Your task to perform on an android device: Search for "razer nari" on newegg.com, select the first entry, and add it to the cart. Image 0: 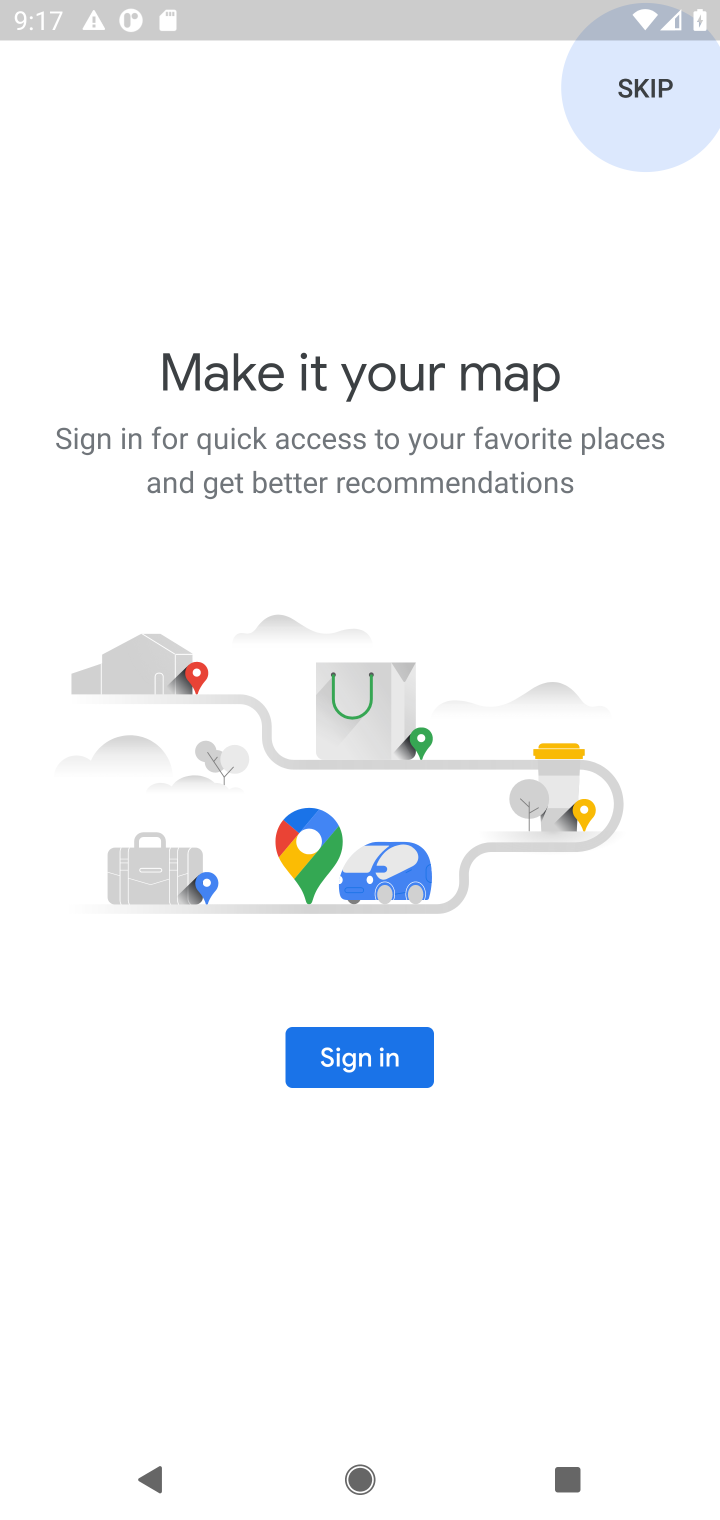
Step 0: press home button
Your task to perform on an android device: Search for "razer nari" on newegg.com, select the first entry, and add it to the cart. Image 1: 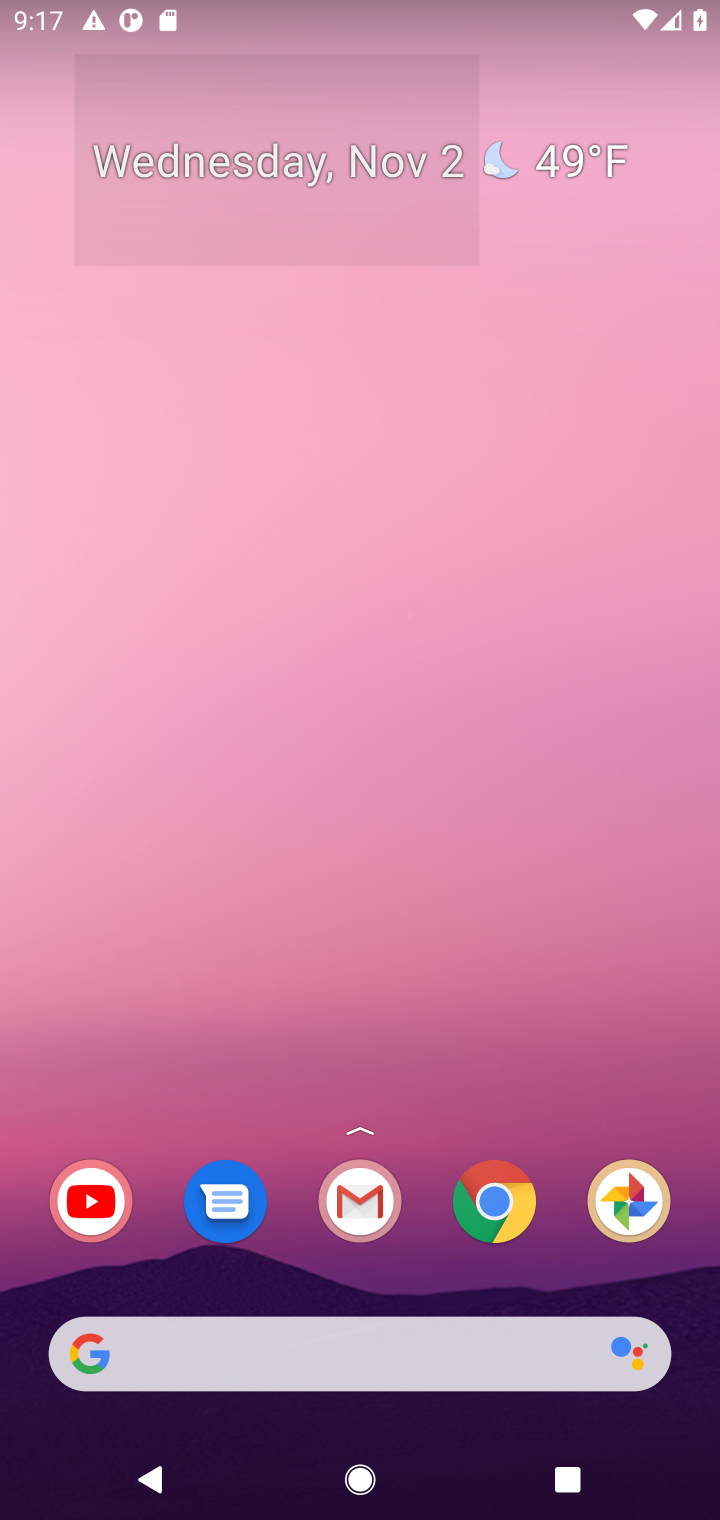
Step 1: drag from (431, 1276) to (551, 282)
Your task to perform on an android device: Search for "razer nari" on newegg.com, select the first entry, and add it to the cart. Image 2: 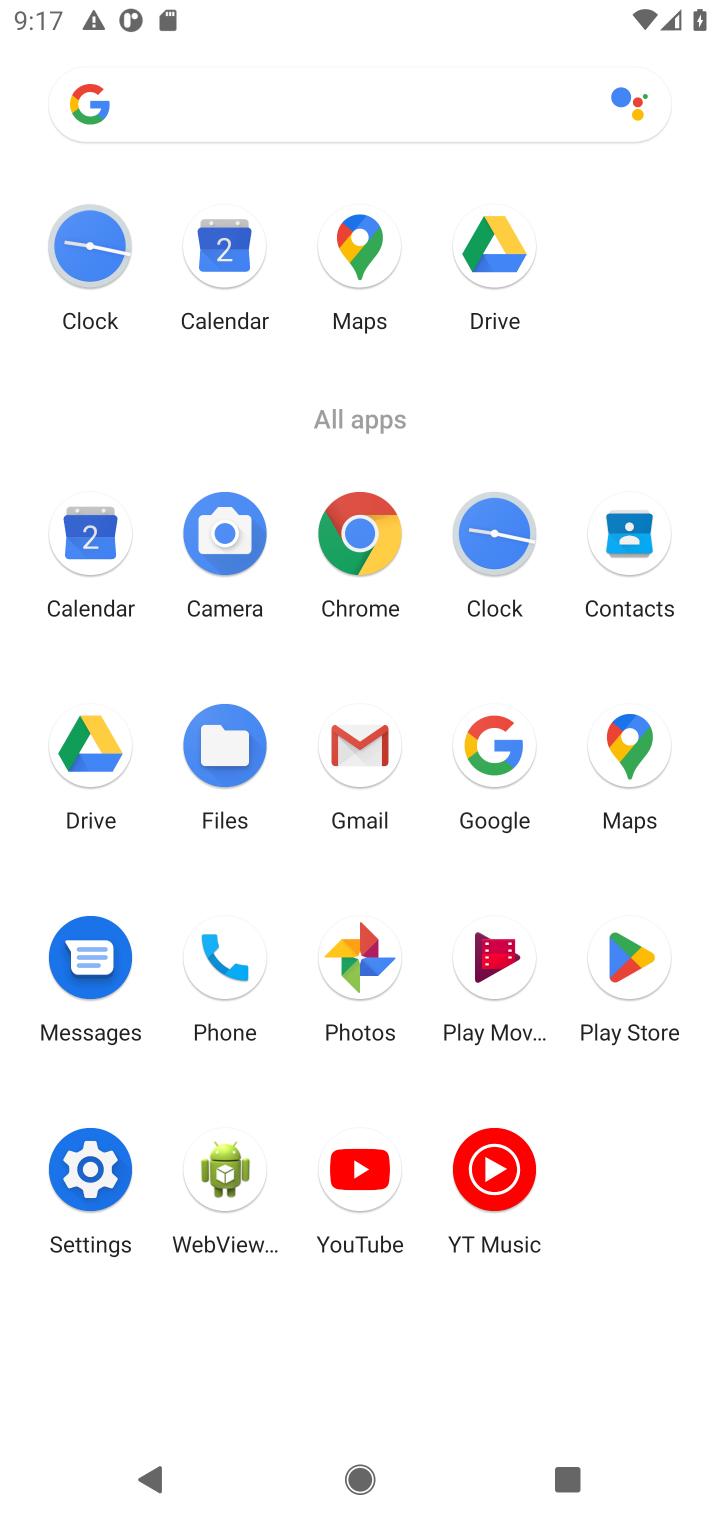
Step 2: click (369, 541)
Your task to perform on an android device: Search for "razer nari" on newegg.com, select the first entry, and add it to the cart. Image 3: 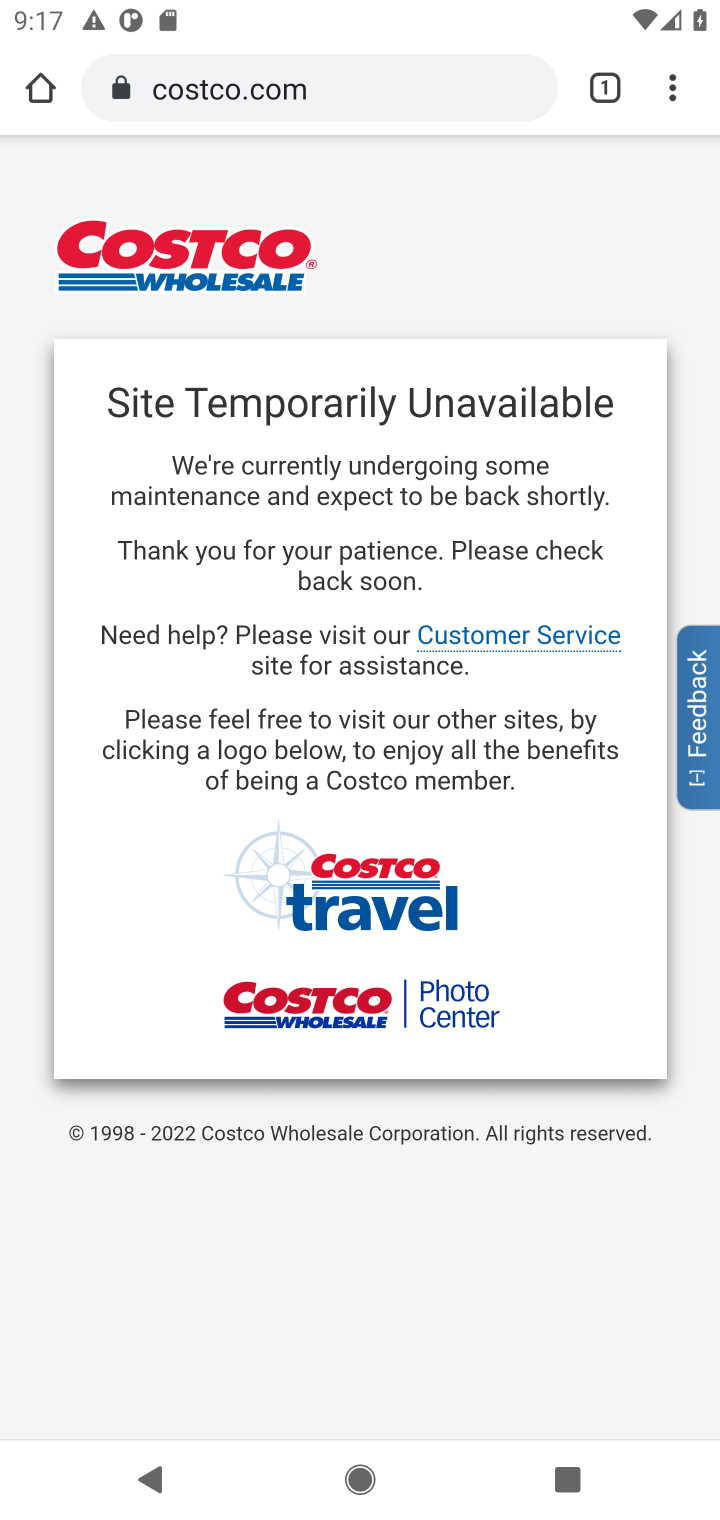
Step 3: click (444, 83)
Your task to perform on an android device: Search for "razer nari" on newegg.com, select the first entry, and add it to the cart. Image 4: 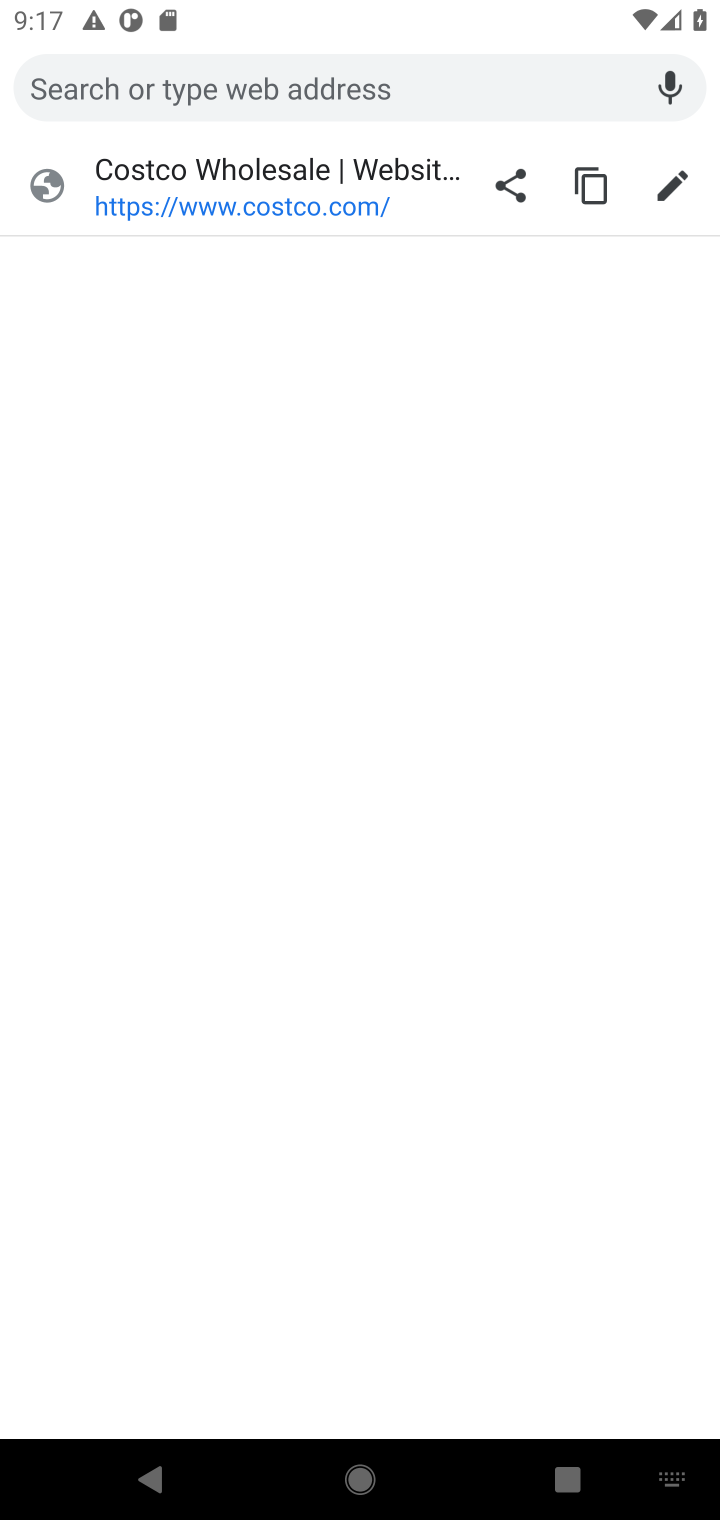
Step 4: type "newegg.com"
Your task to perform on an android device: Search for "razer nari" on newegg.com, select the first entry, and add it to the cart. Image 5: 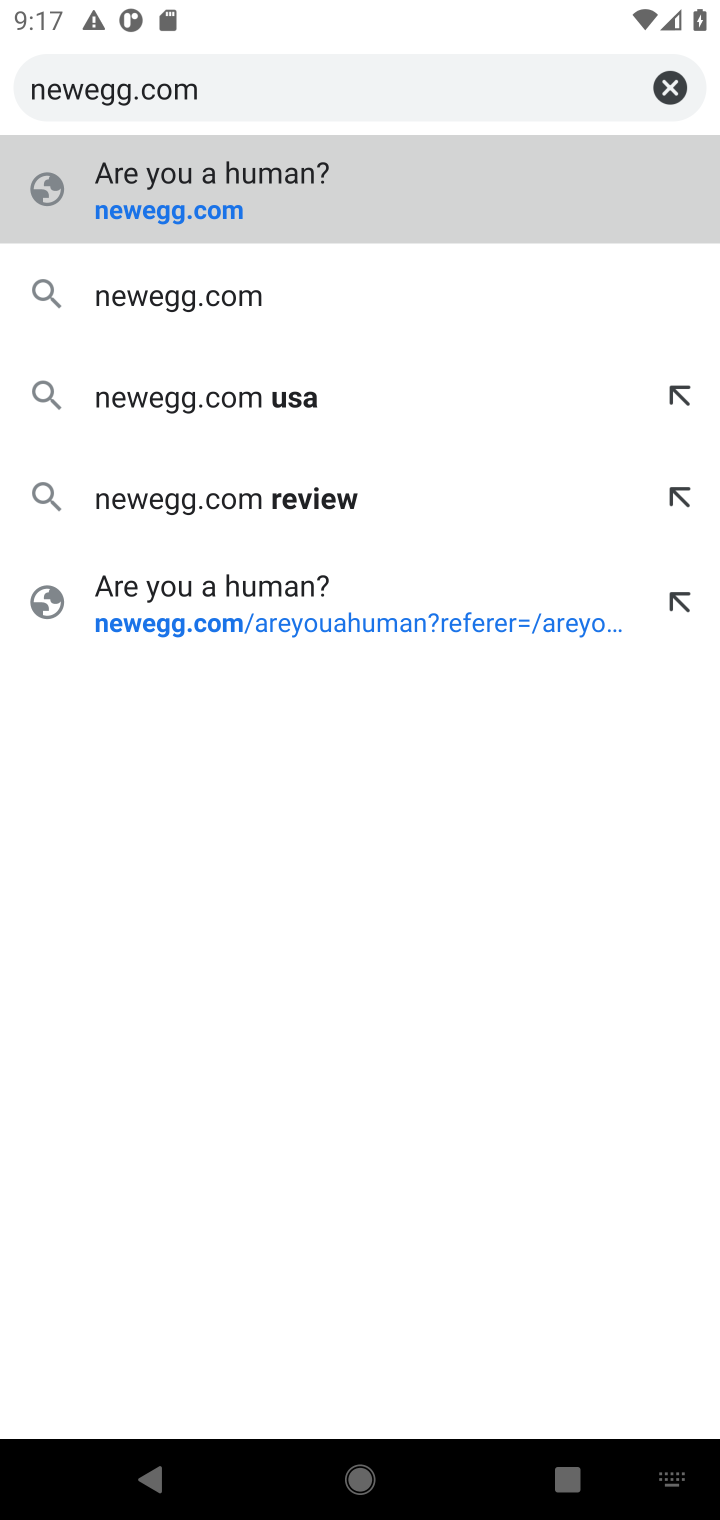
Step 5: press enter
Your task to perform on an android device: Search for "razer nari" on newegg.com, select the first entry, and add it to the cart. Image 6: 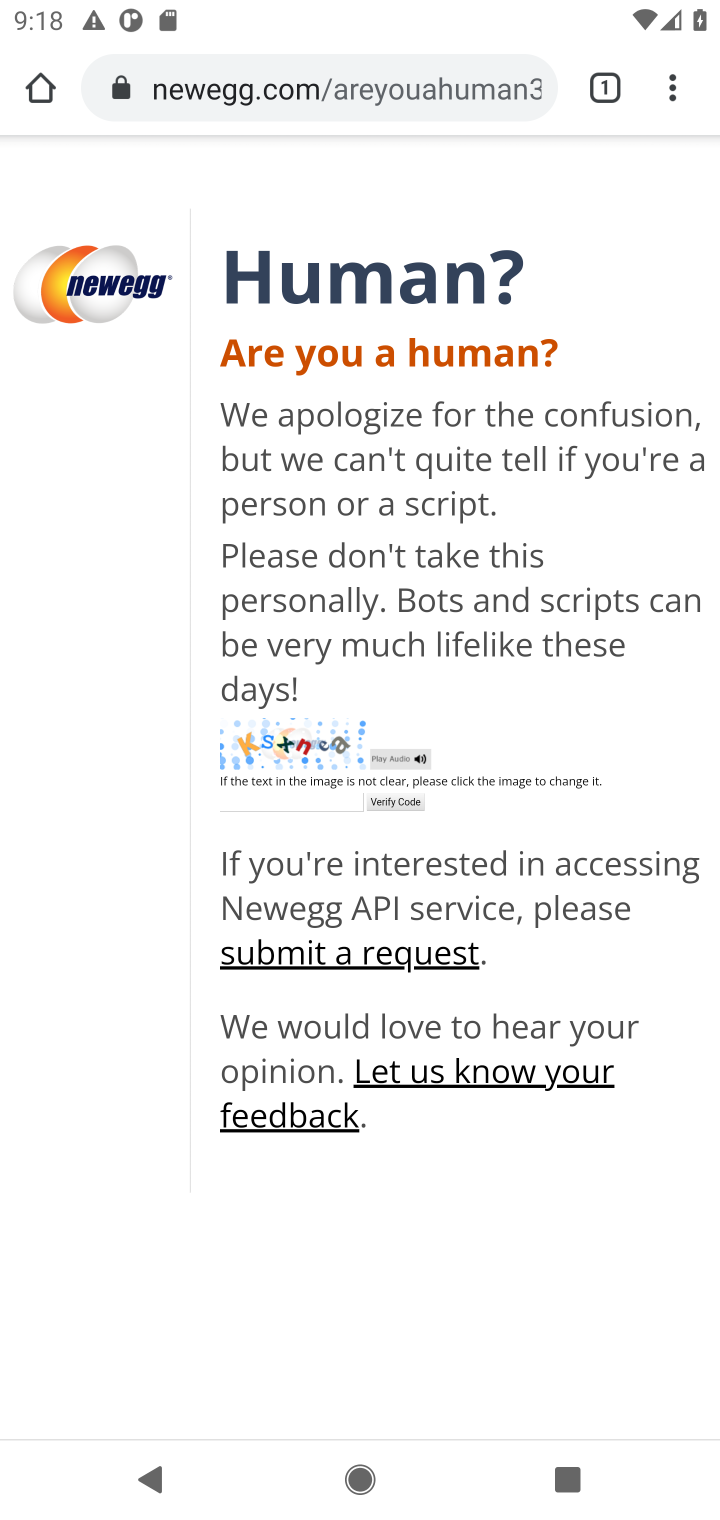
Step 6: click (302, 808)
Your task to perform on an android device: Search for "razer nari" on newegg.com, select the first entry, and add it to the cart. Image 7: 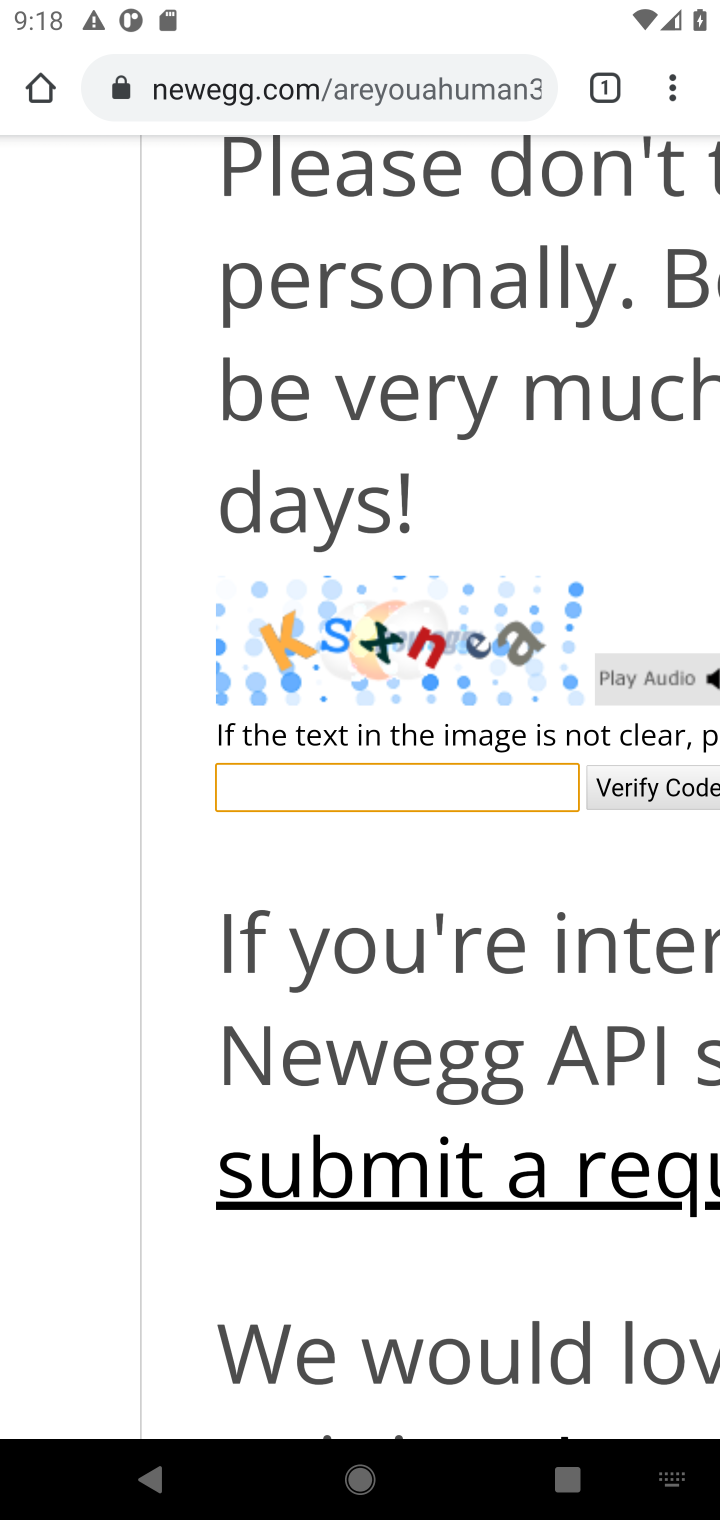
Step 7: type "Ksxnea"
Your task to perform on an android device: Search for "razer nari" on newegg.com, select the first entry, and add it to the cart. Image 8: 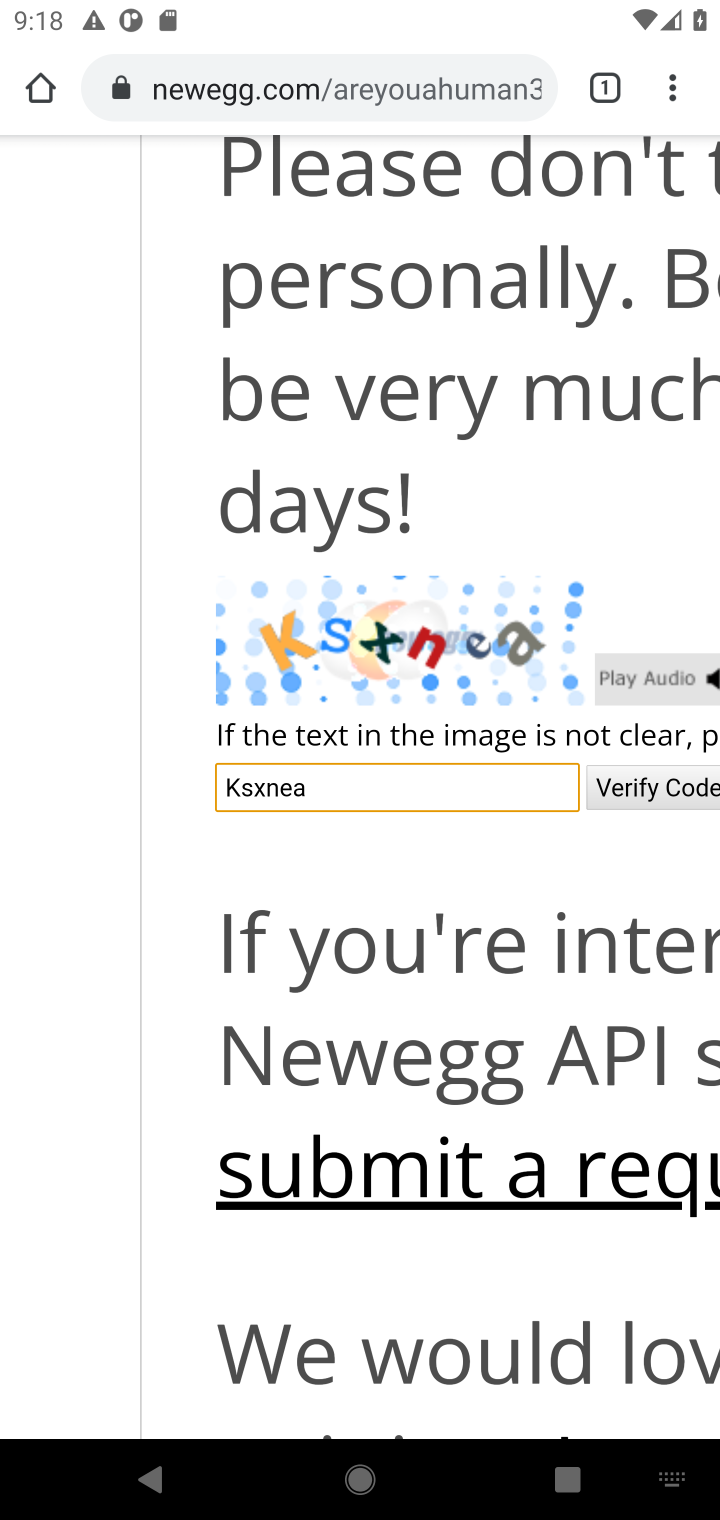
Step 8: click (646, 784)
Your task to perform on an android device: Search for "razer nari" on newegg.com, select the first entry, and add it to the cart. Image 9: 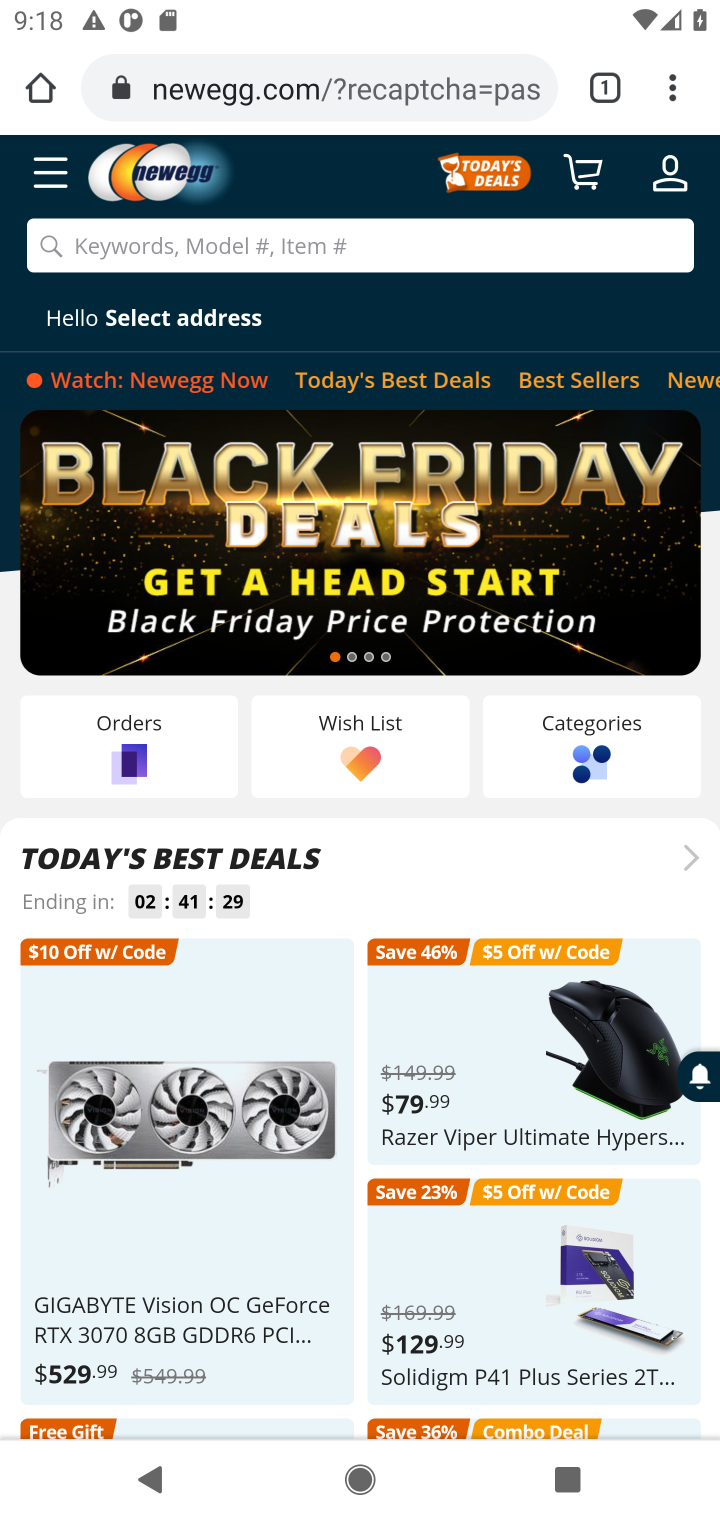
Step 9: click (362, 230)
Your task to perform on an android device: Search for "razer nari" on newegg.com, select the first entry, and add it to the cart. Image 10: 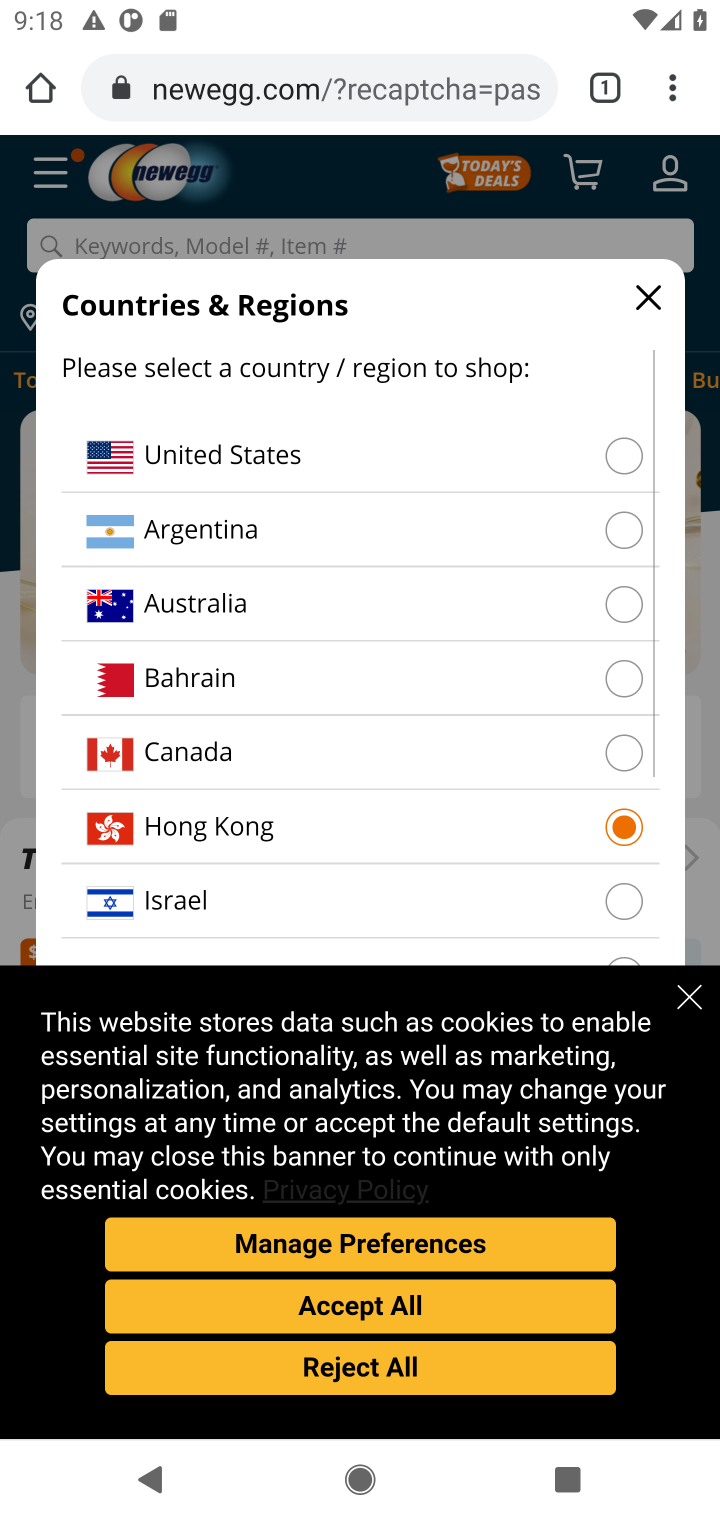
Step 10: click (644, 297)
Your task to perform on an android device: Search for "razer nari" on newegg.com, select the first entry, and add it to the cart. Image 11: 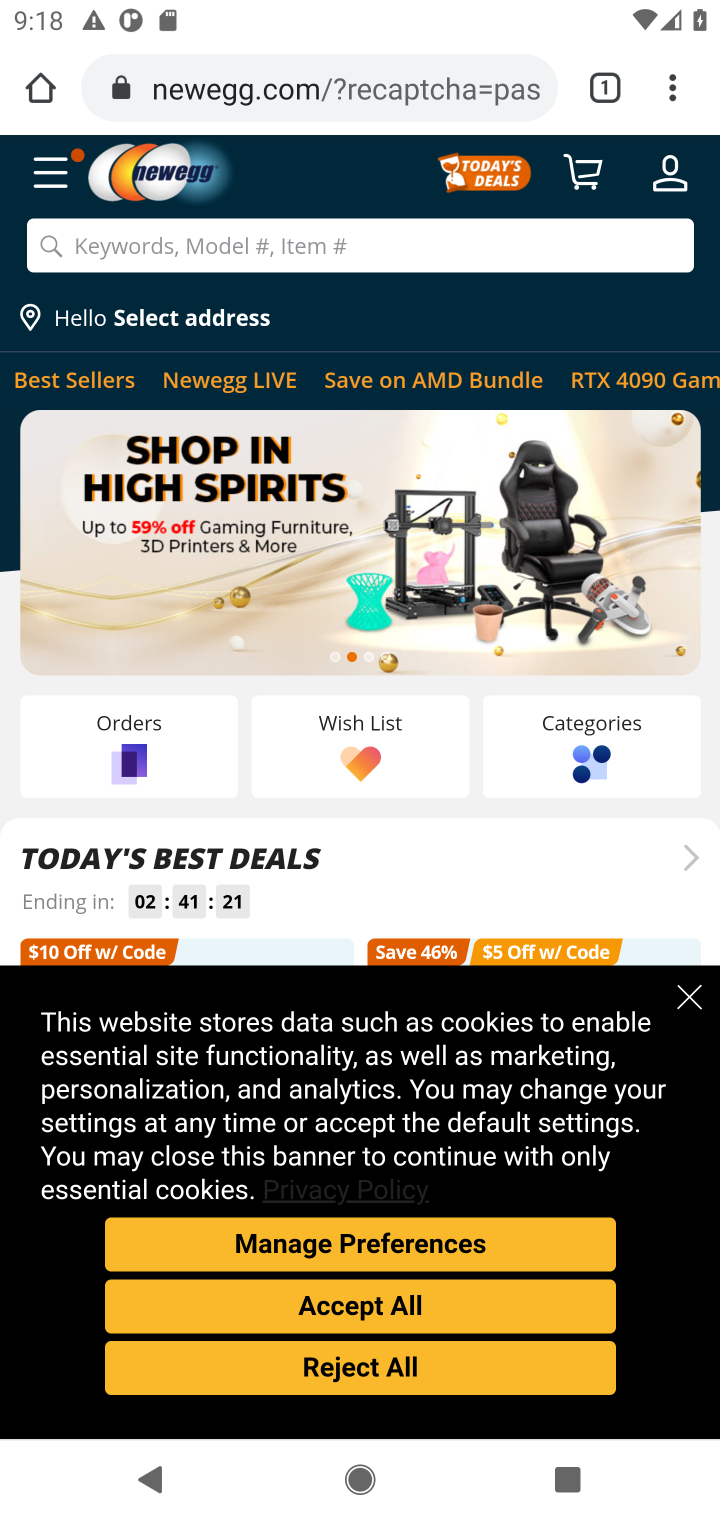
Step 11: click (511, 253)
Your task to perform on an android device: Search for "razer nari" on newegg.com, select the first entry, and add it to the cart. Image 12: 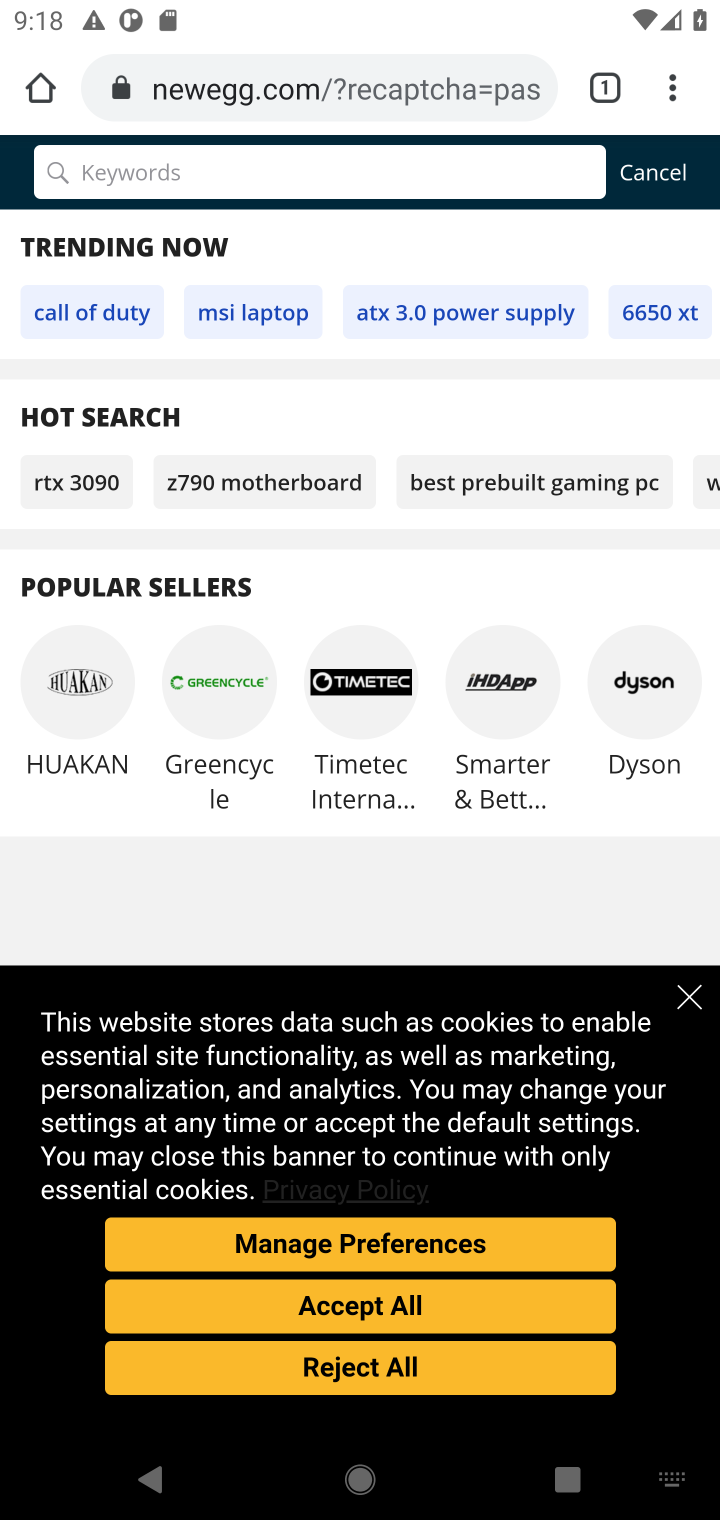
Step 12: type "razer nari"
Your task to perform on an android device: Search for "razer nari" on newegg.com, select the first entry, and add it to the cart. Image 13: 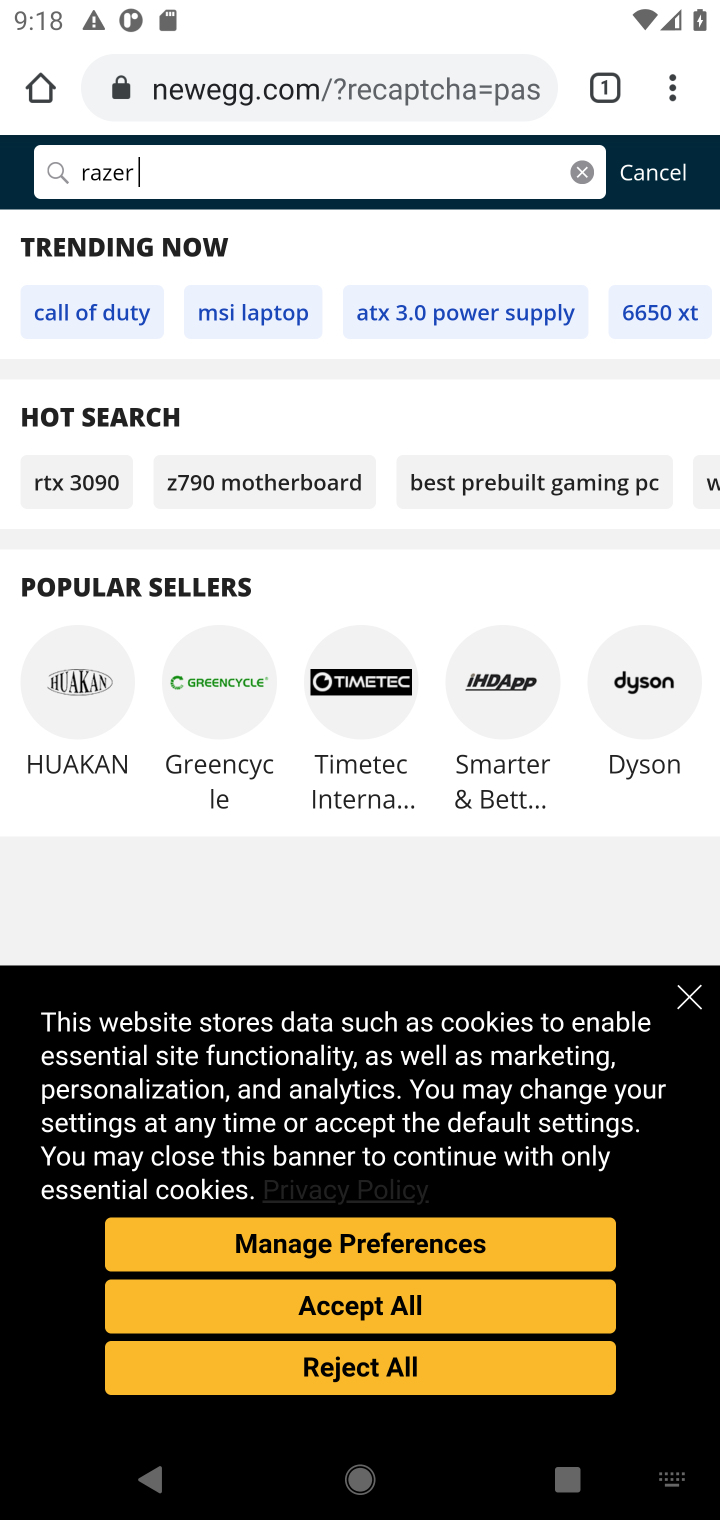
Step 13: press enter
Your task to perform on an android device: Search for "razer nari" on newegg.com, select the first entry, and add it to the cart. Image 14: 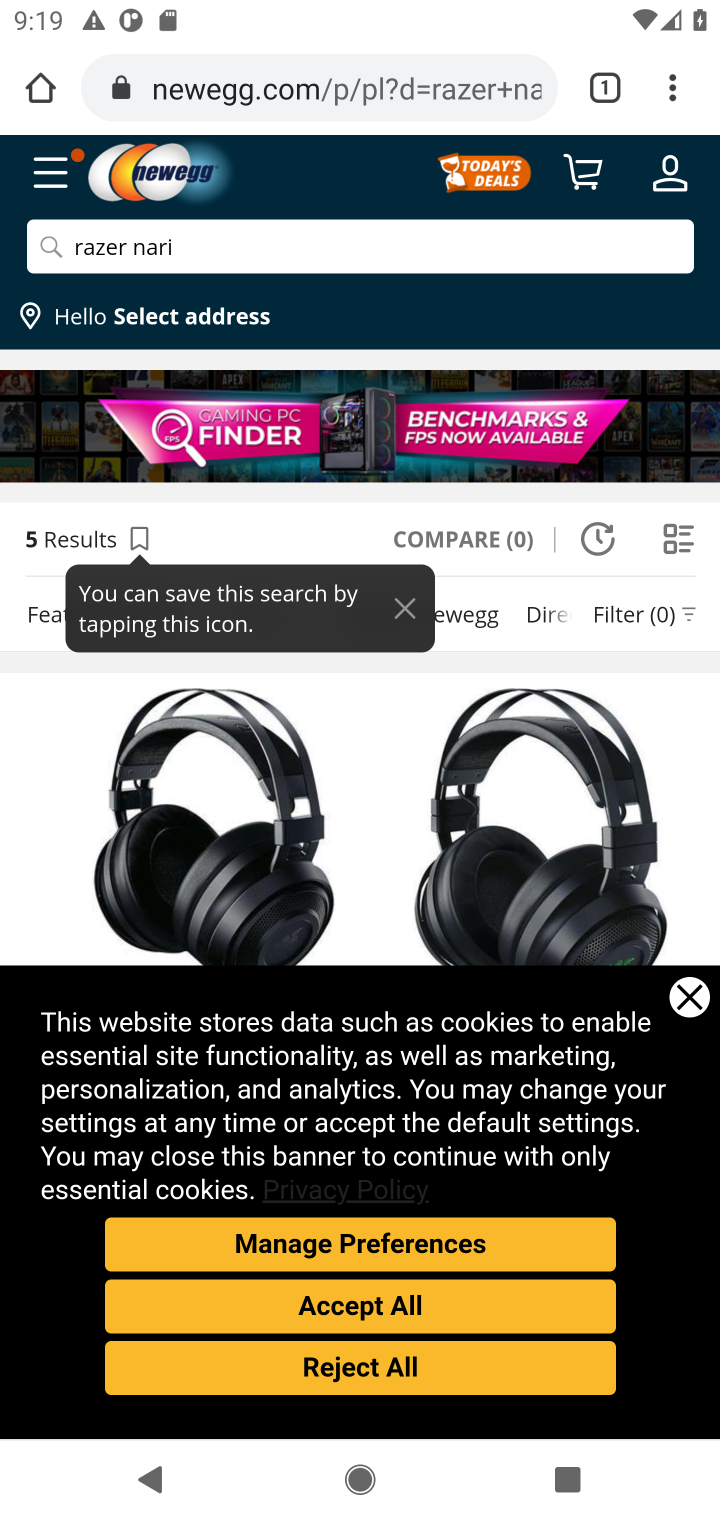
Step 14: drag from (511, 903) to (628, 506)
Your task to perform on an android device: Search for "razer nari" on newegg.com, select the first entry, and add it to the cart. Image 15: 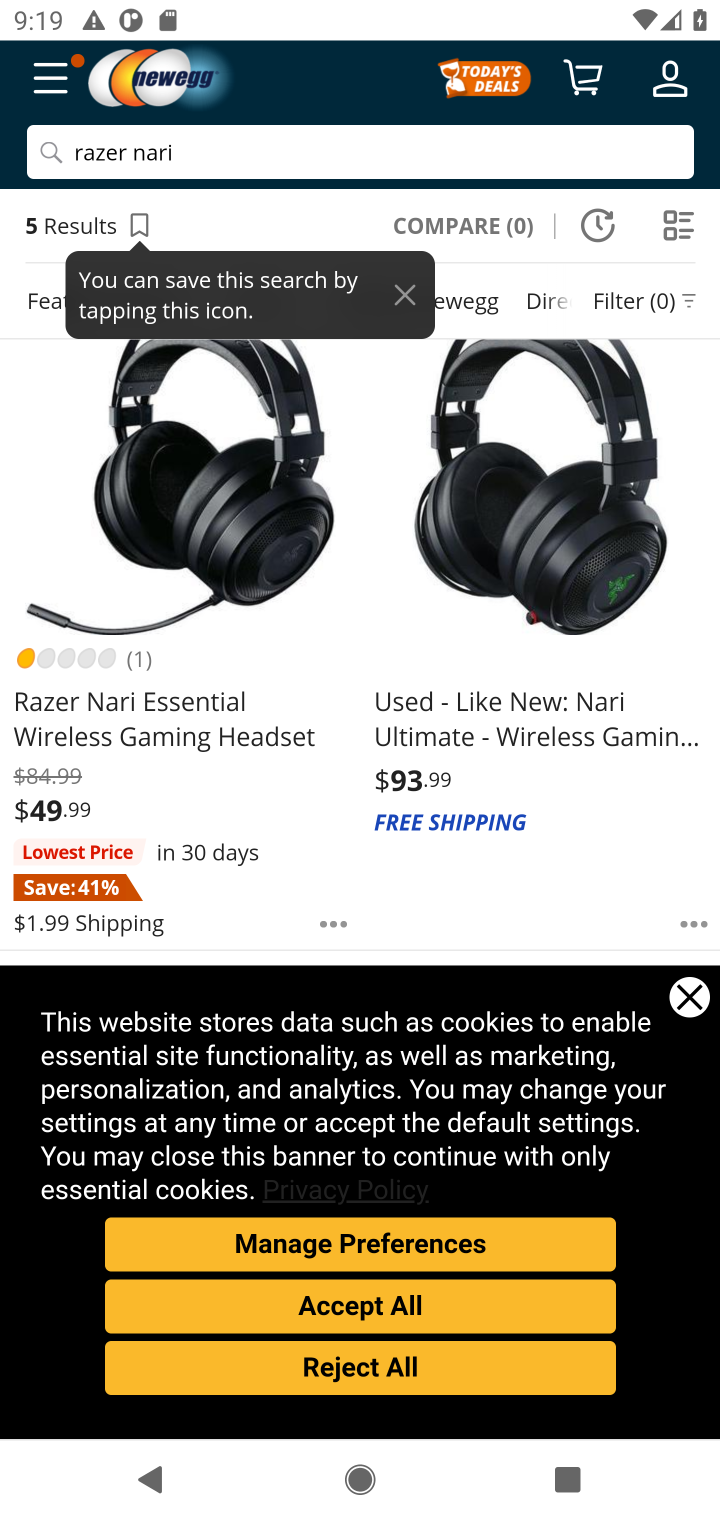
Step 15: click (401, 297)
Your task to perform on an android device: Search for "razer nari" on newegg.com, select the first entry, and add it to the cart. Image 16: 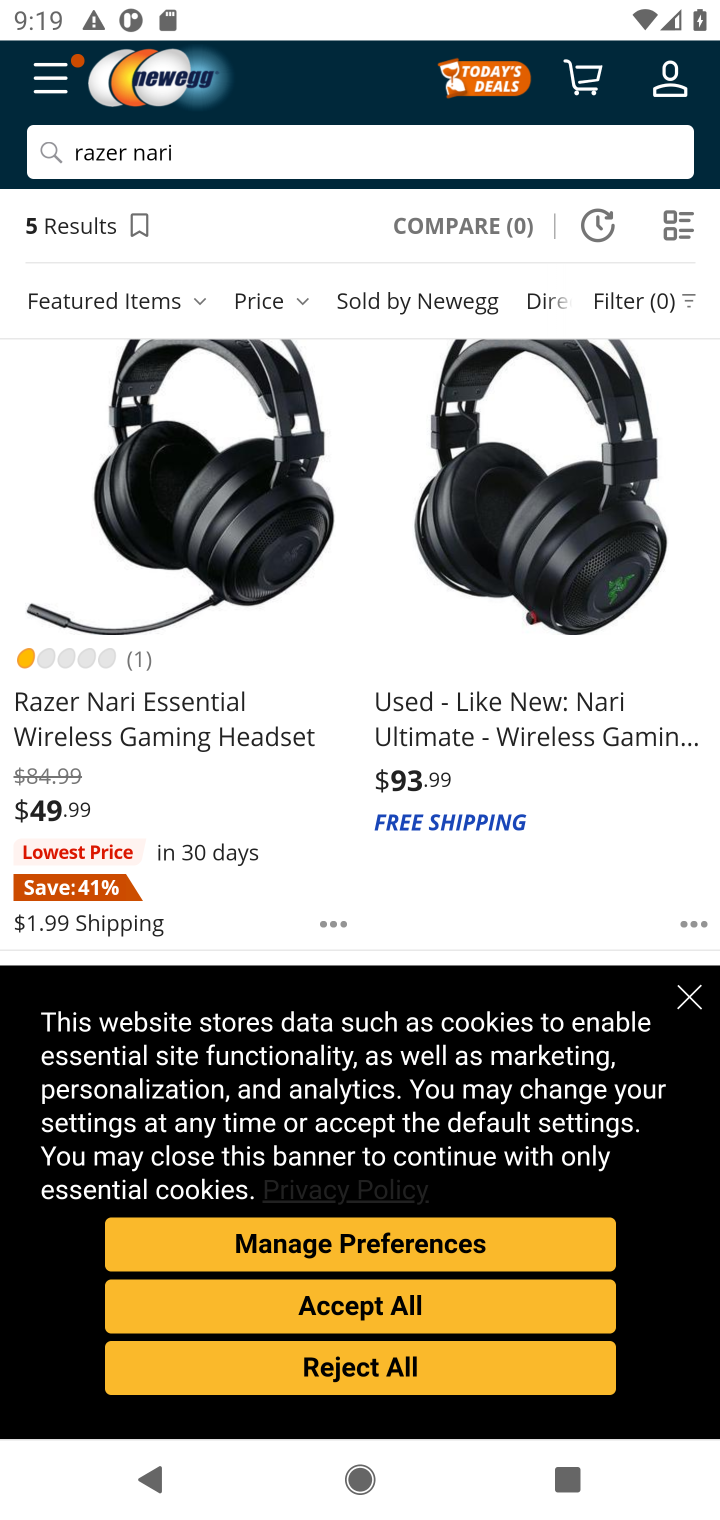
Step 16: click (149, 722)
Your task to perform on an android device: Search for "razer nari" on newegg.com, select the first entry, and add it to the cart. Image 17: 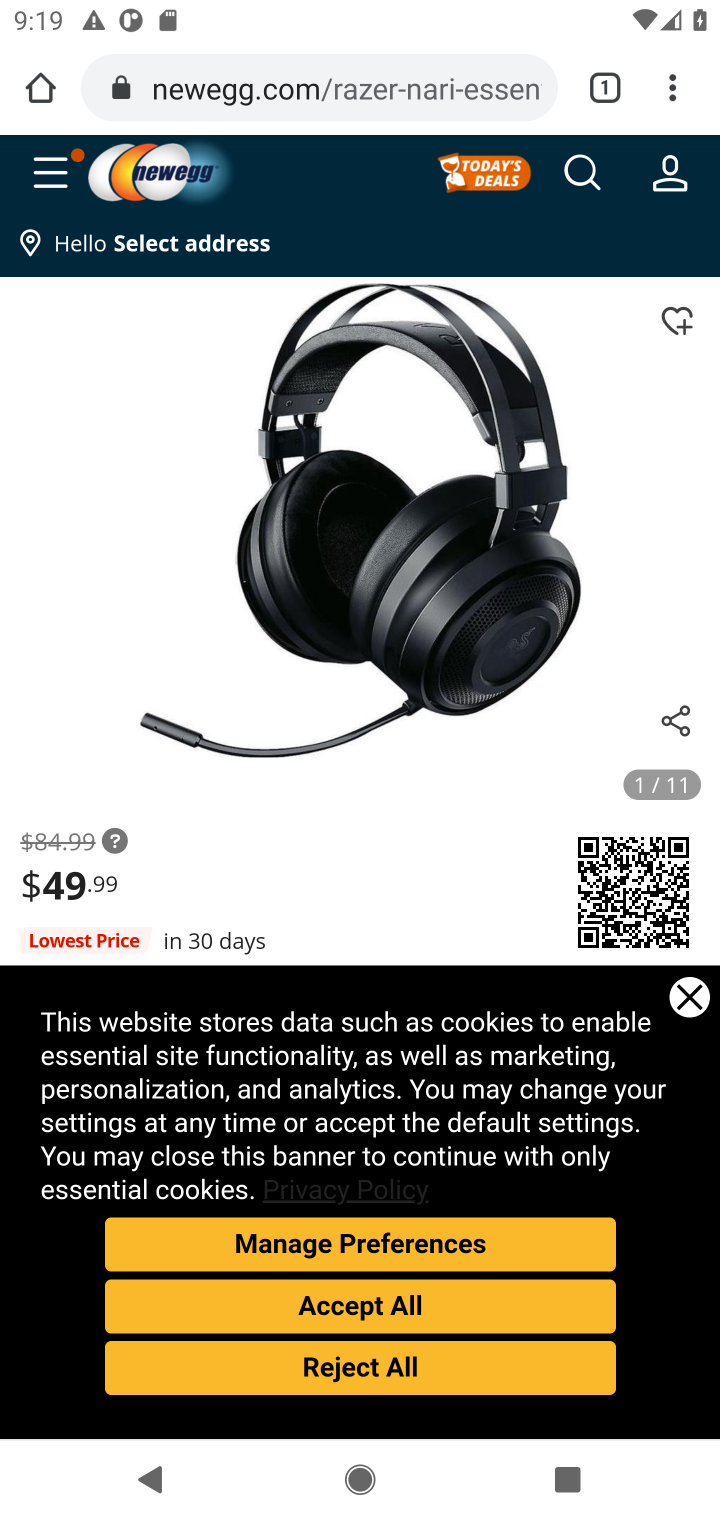
Step 17: click (694, 1006)
Your task to perform on an android device: Search for "razer nari" on newegg.com, select the first entry, and add it to the cart. Image 18: 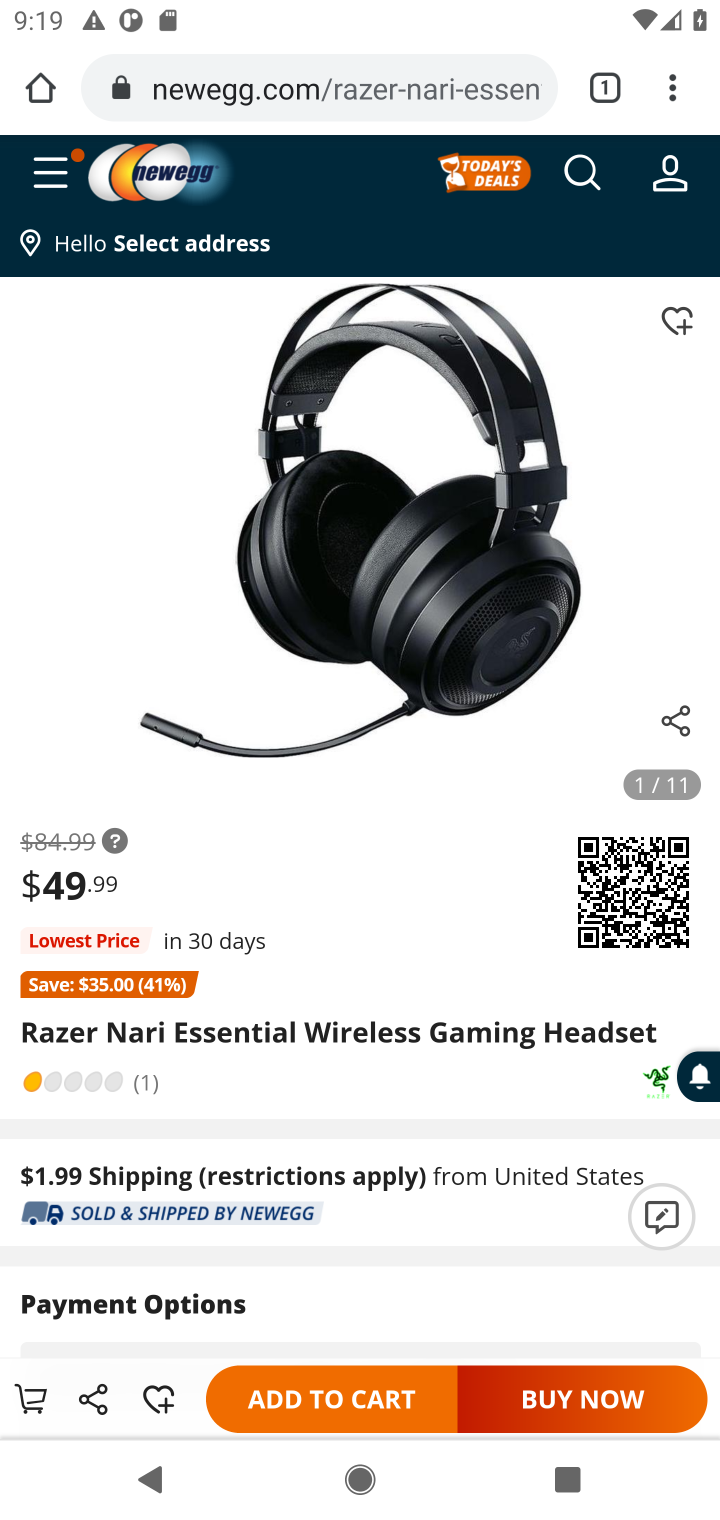
Step 18: click (317, 1390)
Your task to perform on an android device: Search for "razer nari" on newegg.com, select the first entry, and add it to the cart. Image 19: 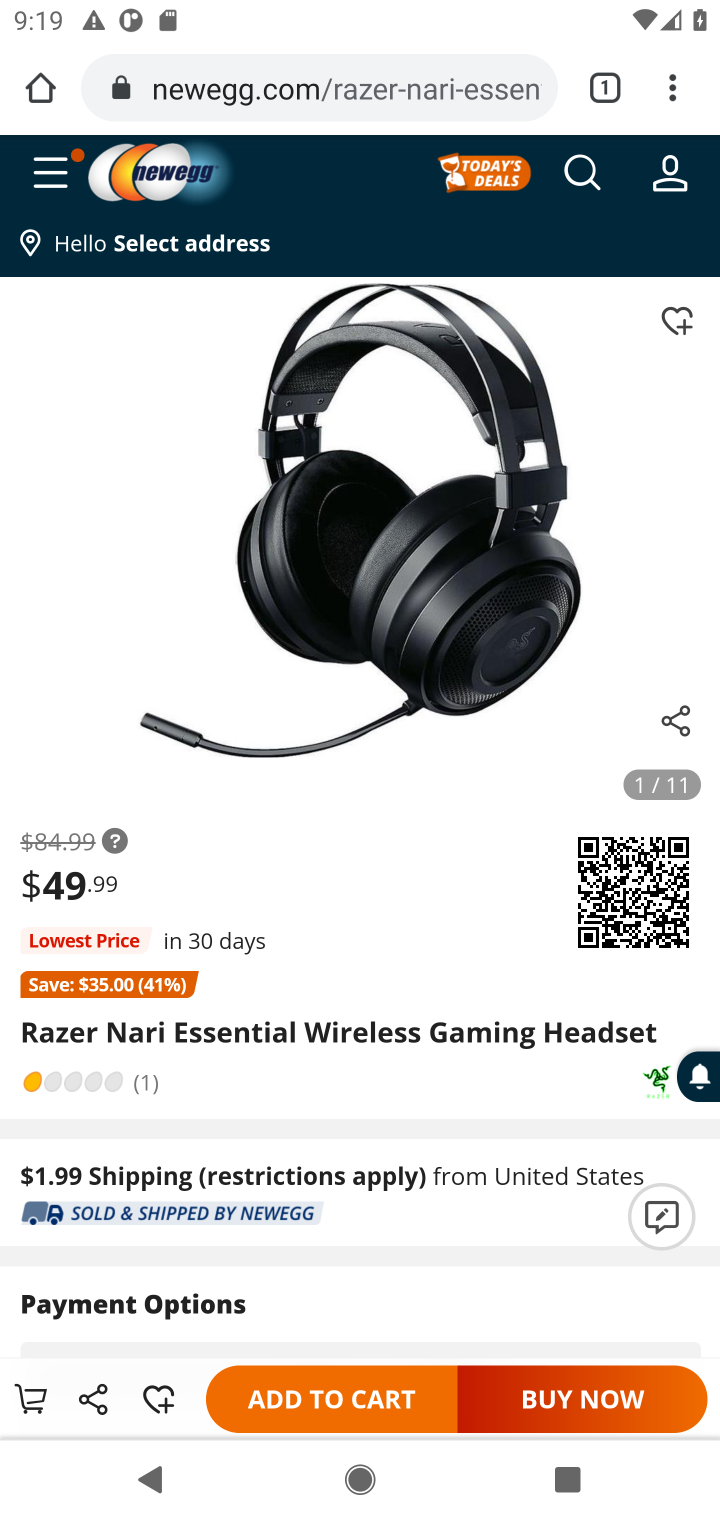
Step 19: click (329, 1397)
Your task to perform on an android device: Search for "razer nari" on newegg.com, select the first entry, and add it to the cart. Image 20: 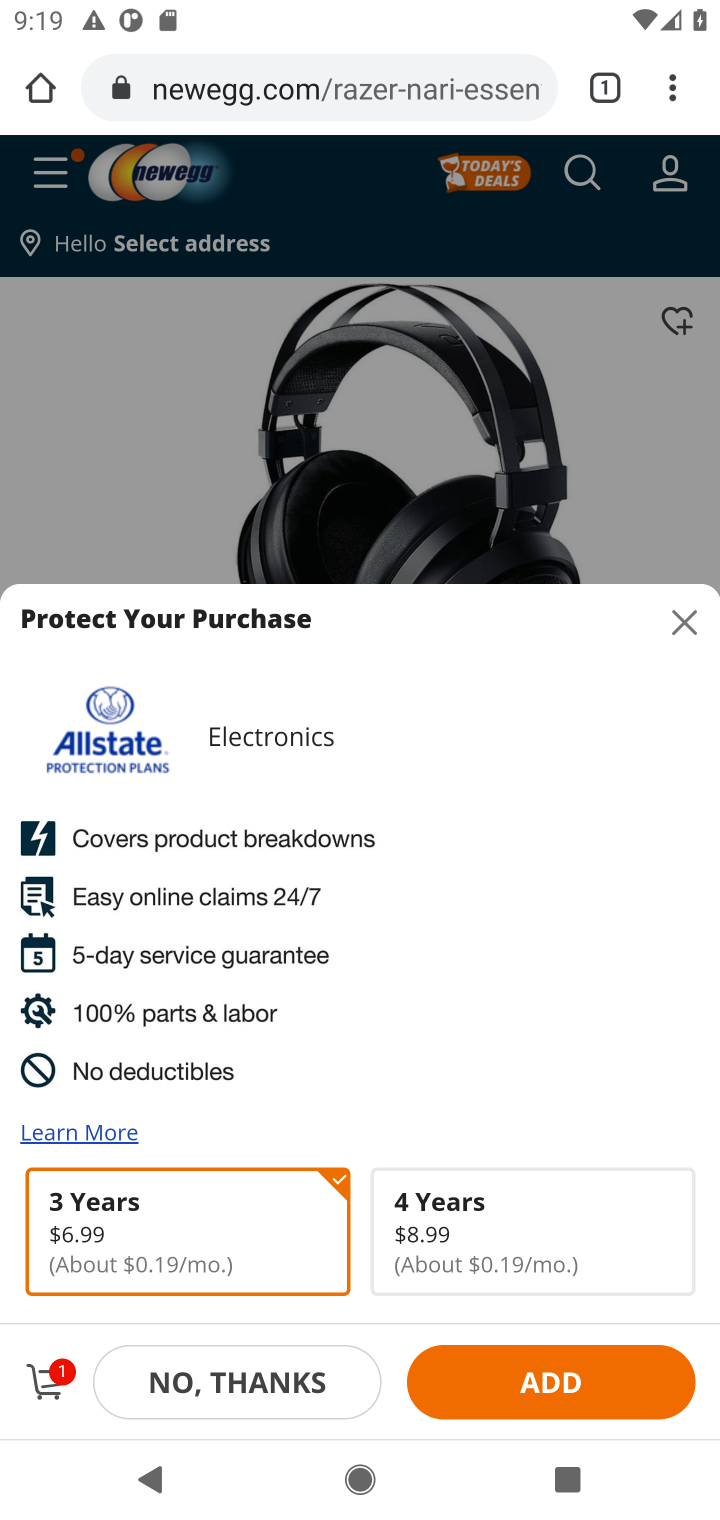
Step 20: task complete